Your task to perform on an android device: Open Maps and search for coffee Image 0: 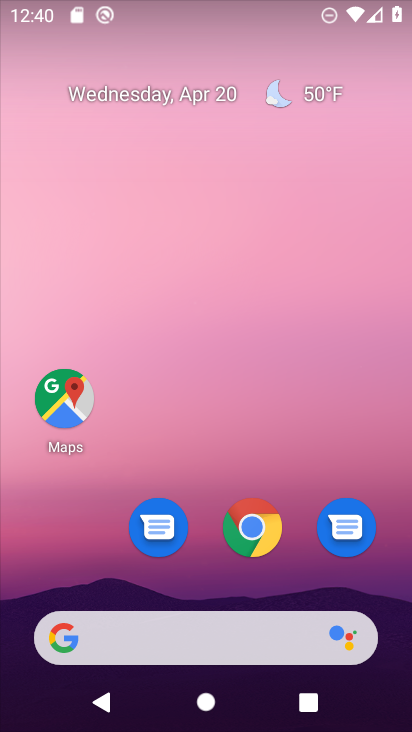
Step 0: click (59, 401)
Your task to perform on an android device: Open Maps and search for coffee Image 1: 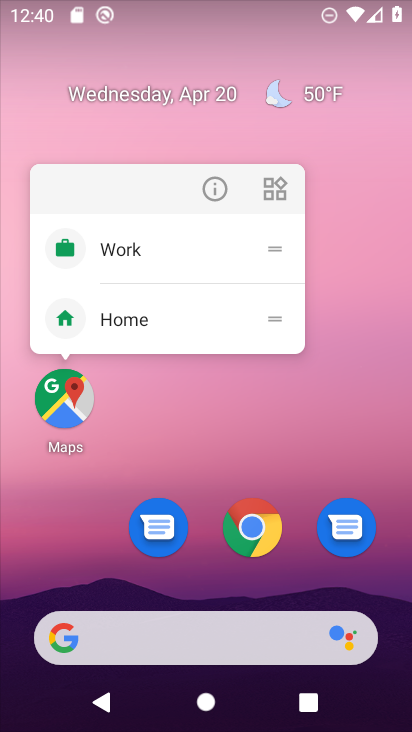
Step 1: click (59, 401)
Your task to perform on an android device: Open Maps and search for coffee Image 2: 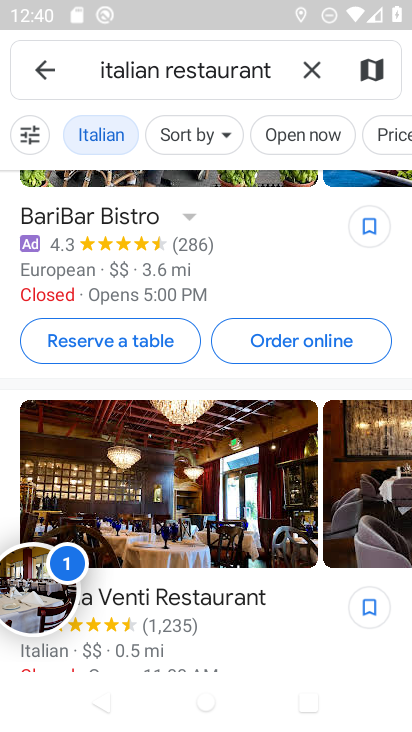
Step 2: click (315, 72)
Your task to perform on an android device: Open Maps and search for coffee Image 3: 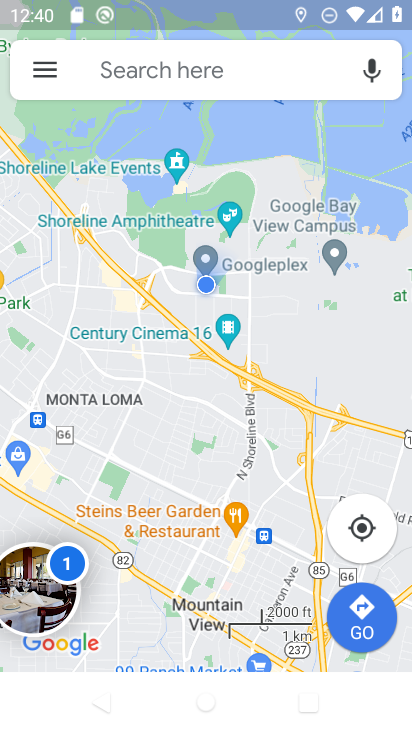
Step 3: click (144, 72)
Your task to perform on an android device: Open Maps and search for coffee Image 4: 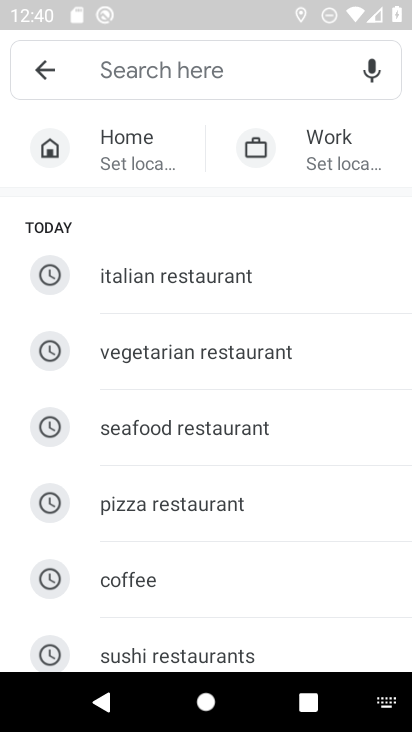
Step 4: type "coffee"
Your task to perform on an android device: Open Maps and search for coffee Image 5: 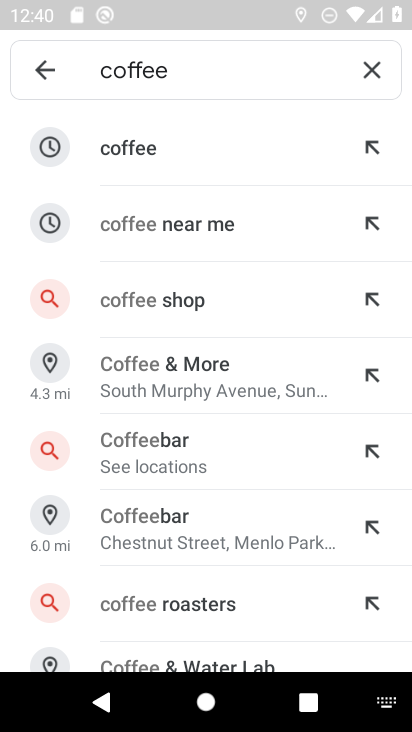
Step 5: click (141, 157)
Your task to perform on an android device: Open Maps and search for coffee Image 6: 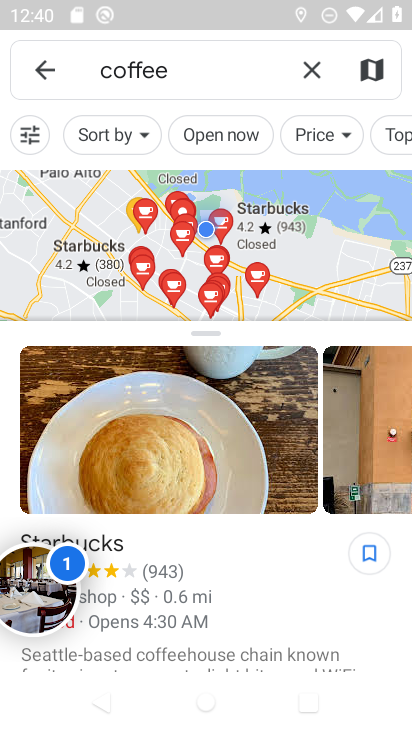
Step 6: task complete